Your task to perform on an android device: Open privacy settings Image 0: 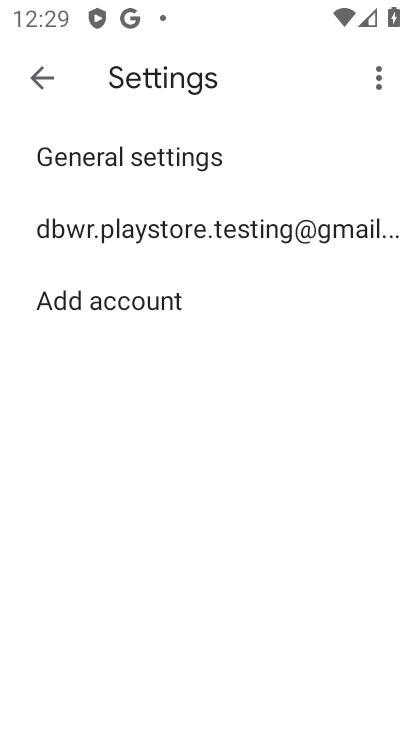
Step 0: press home button
Your task to perform on an android device: Open privacy settings Image 1: 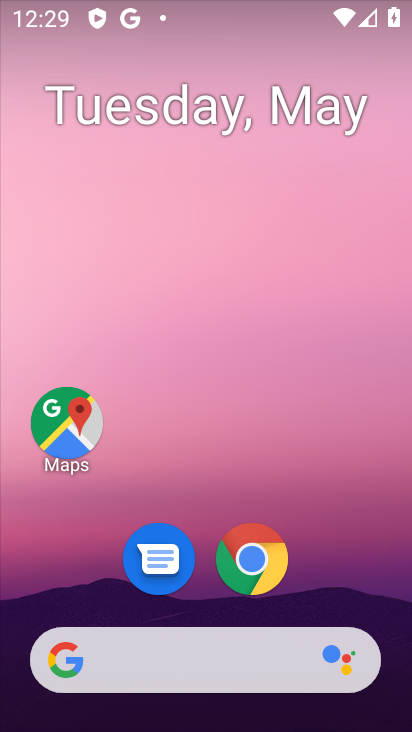
Step 1: drag from (301, 534) to (298, 276)
Your task to perform on an android device: Open privacy settings Image 2: 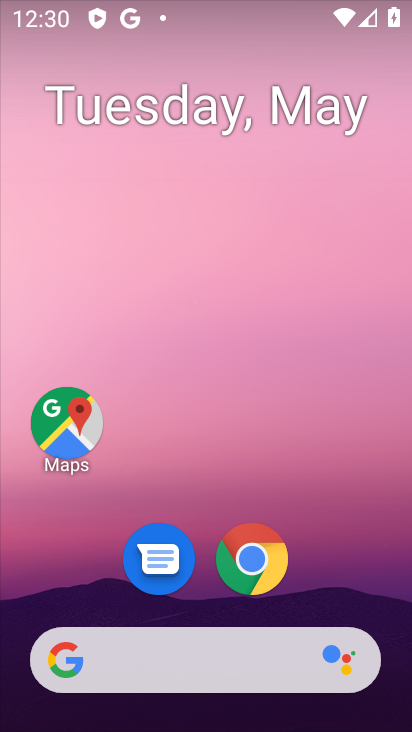
Step 2: drag from (322, 553) to (312, 280)
Your task to perform on an android device: Open privacy settings Image 3: 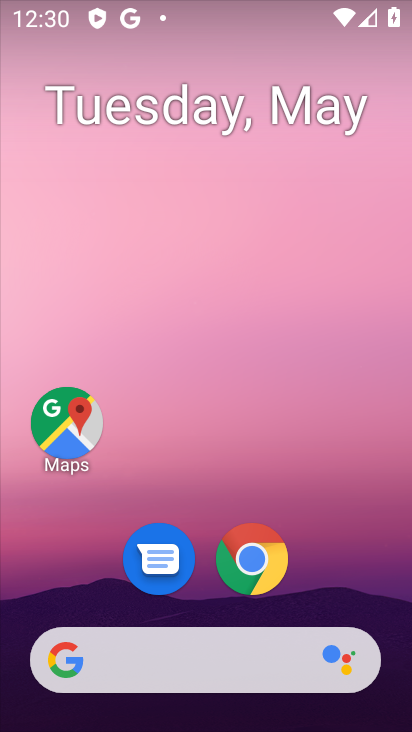
Step 3: drag from (332, 592) to (251, 117)
Your task to perform on an android device: Open privacy settings Image 4: 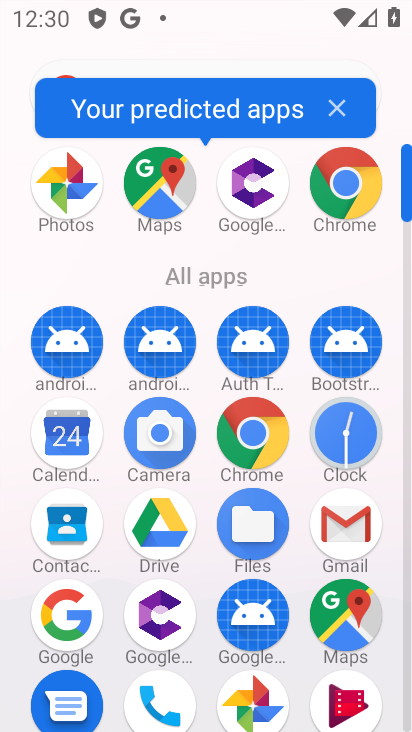
Step 4: drag from (302, 608) to (295, 233)
Your task to perform on an android device: Open privacy settings Image 5: 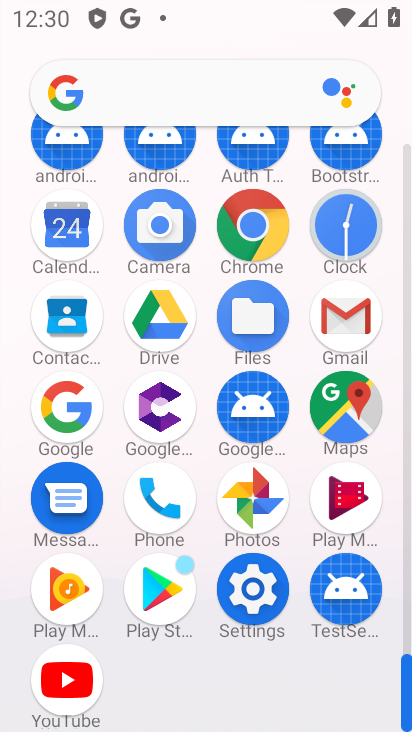
Step 5: click (250, 581)
Your task to perform on an android device: Open privacy settings Image 6: 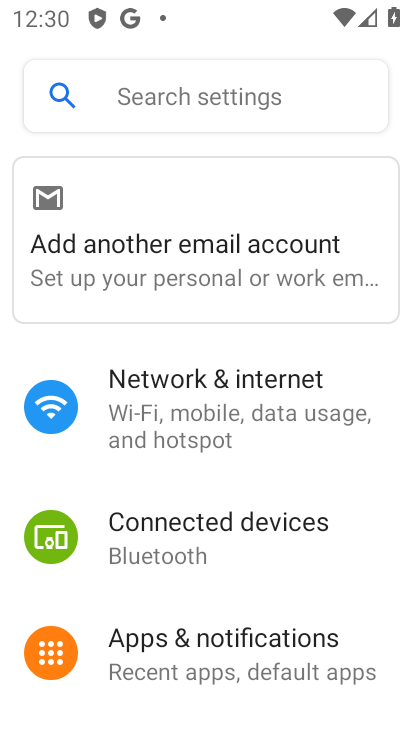
Step 6: drag from (287, 611) to (326, 299)
Your task to perform on an android device: Open privacy settings Image 7: 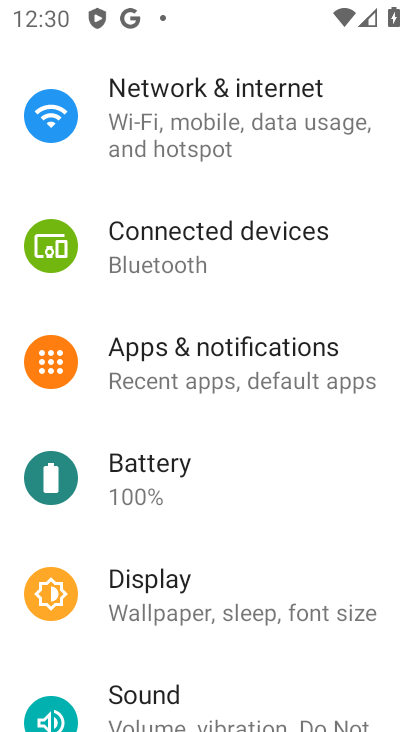
Step 7: drag from (275, 562) to (255, 301)
Your task to perform on an android device: Open privacy settings Image 8: 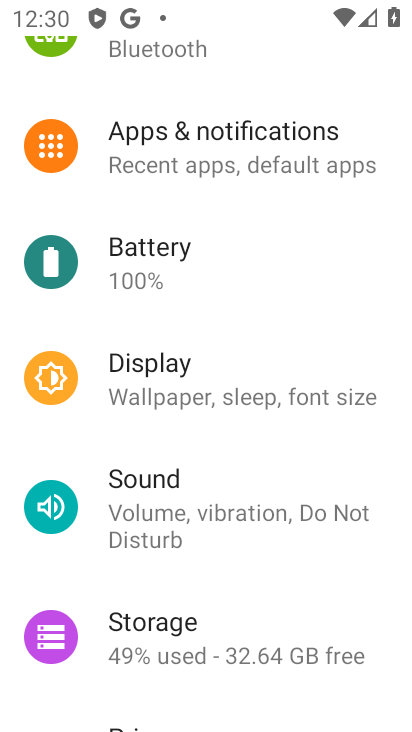
Step 8: drag from (267, 561) to (267, 420)
Your task to perform on an android device: Open privacy settings Image 9: 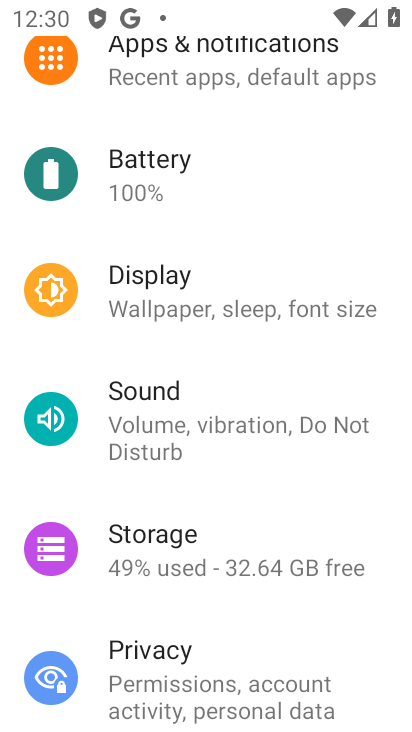
Step 9: click (212, 666)
Your task to perform on an android device: Open privacy settings Image 10: 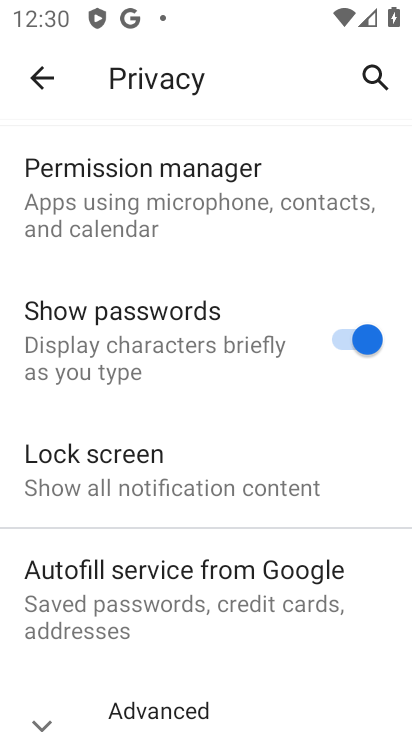
Step 10: task complete